Your task to perform on an android device: toggle airplane mode Image 0: 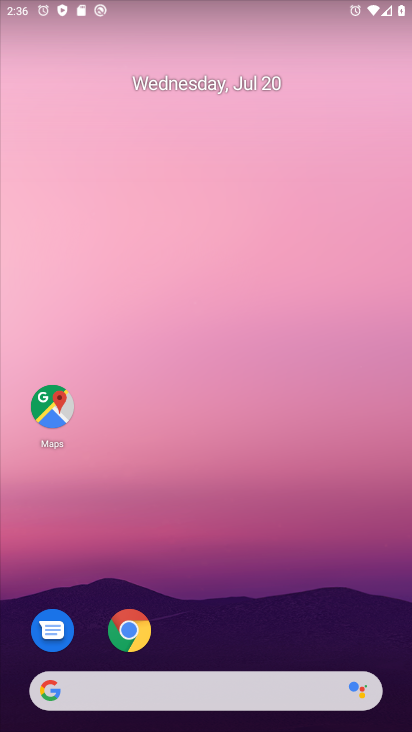
Step 0: drag from (373, 2) to (309, 514)
Your task to perform on an android device: toggle airplane mode Image 1: 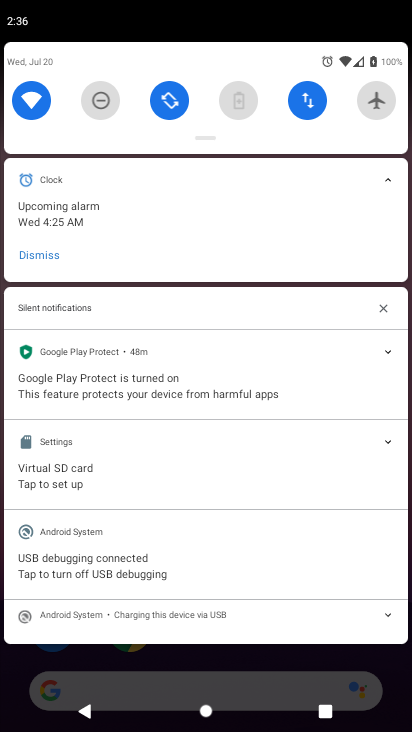
Step 1: click (380, 98)
Your task to perform on an android device: toggle airplane mode Image 2: 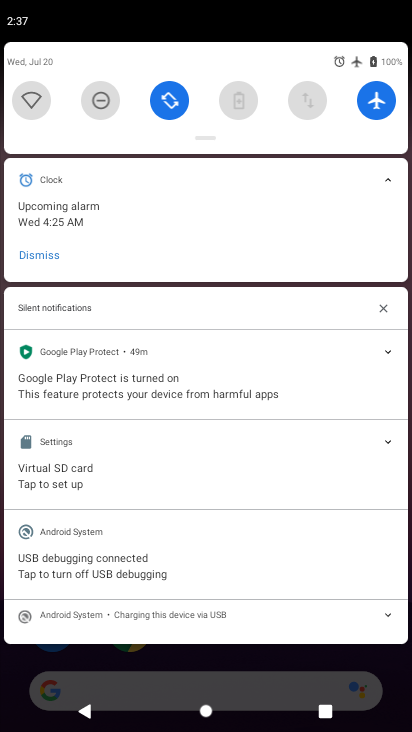
Step 2: task complete